Your task to perform on an android device: Go to Yahoo.com Image 0: 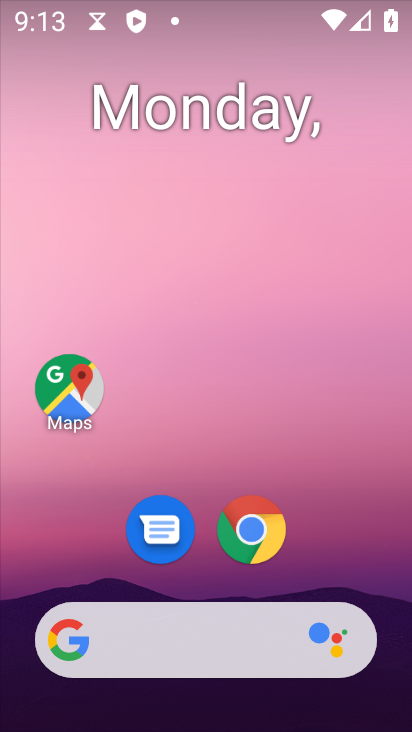
Step 0: drag from (281, 613) to (281, 24)
Your task to perform on an android device: Go to Yahoo.com Image 1: 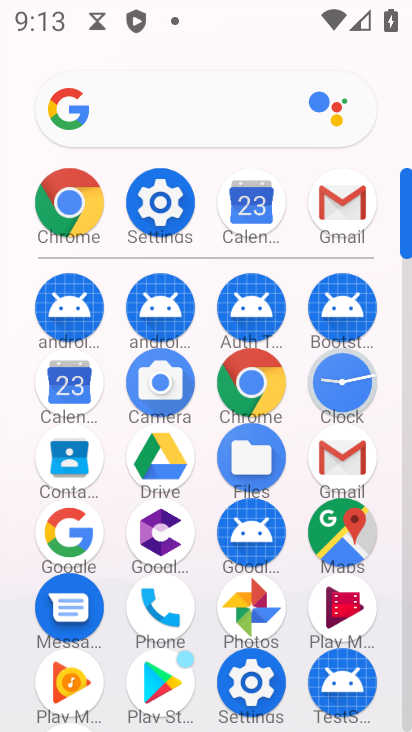
Step 1: click (72, 205)
Your task to perform on an android device: Go to Yahoo.com Image 2: 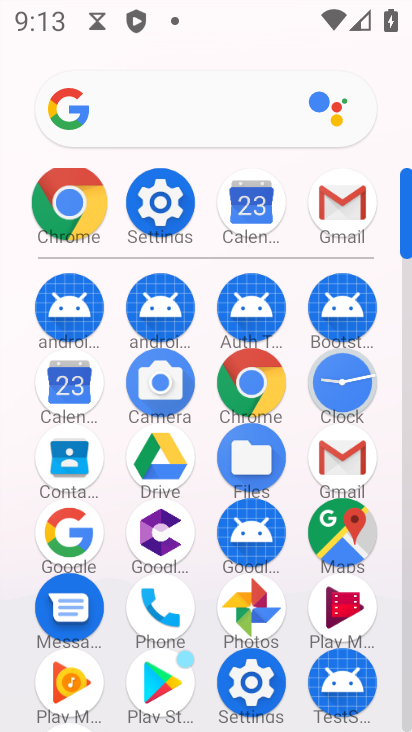
Step 2: click (82, 206)
Your task to perform on an android device: Go to Yahoo.com Image 3: 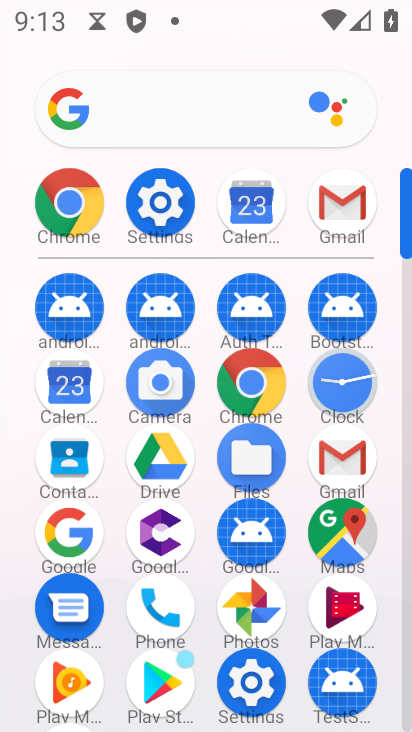
Step 3: click (68, 212)
Your task to perform on an android device: Go to Yahoo.com Image 4: 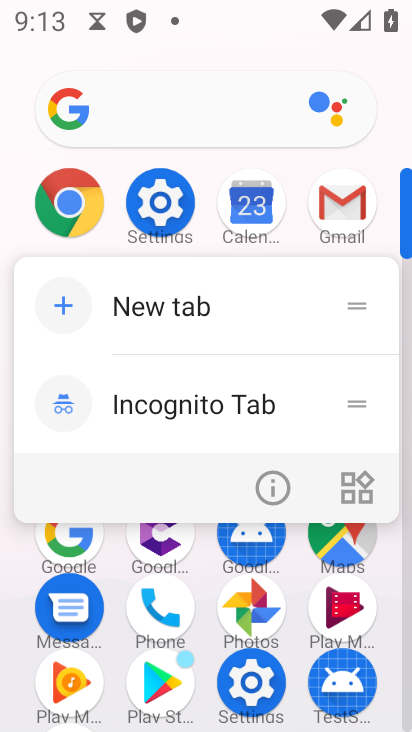
Step 4: click (130, 302)
Your task to perform on an android device: Go to Yahoo.com Image 5: 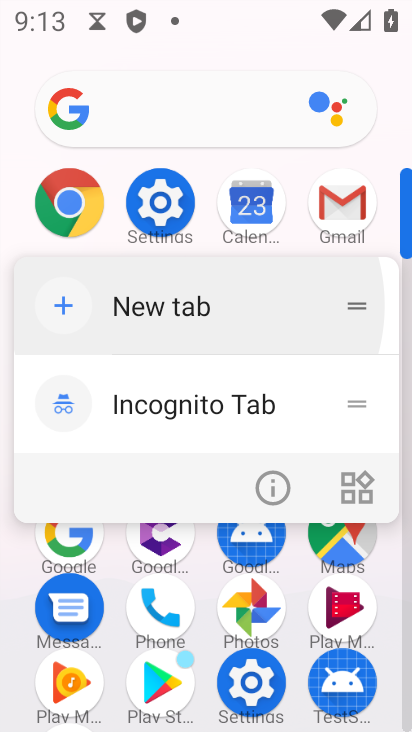
Step 5: click (131, 303)
Your task to perform on an android device: Go to Yahoo.com Image 6: 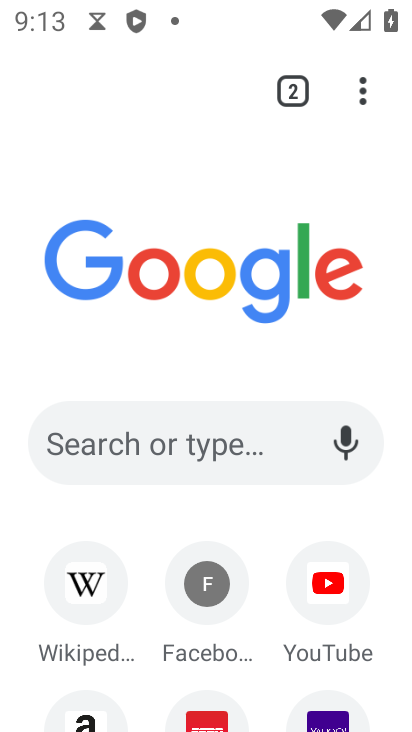
Step 6: drag from (267, 604) to (201, 138)
Your task to perform on an android device: Go to Yahoo.com Image 7: 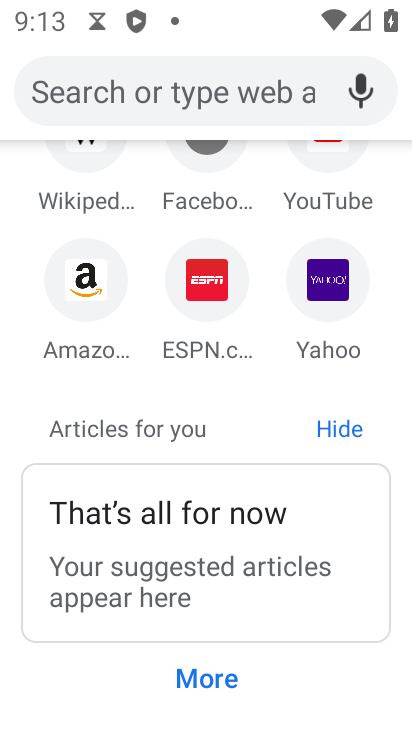
Step 7: drag from (300, 477) to (240, 82)
Your task to perform on an android device: Go to Yahoo.com Image 8: 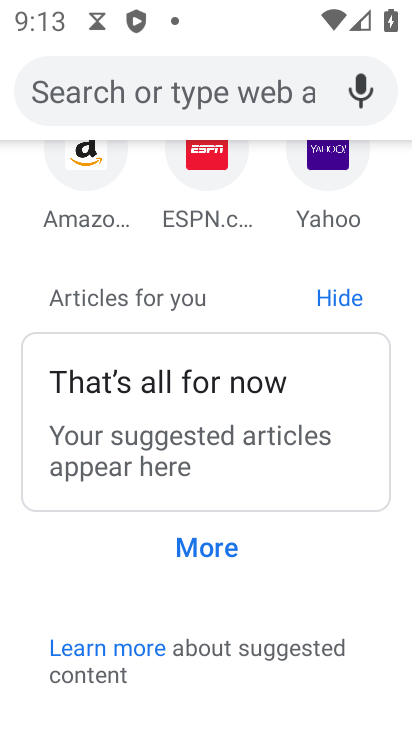
Step 8: click (331, 149)
Your task to perform on an android device: Go to Yahoo.com Image 9: 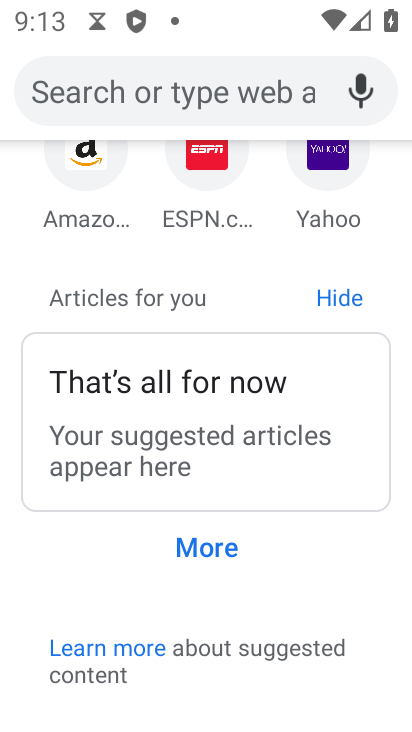
Step 9: click (331, 149)
Your task to perform on an android device: Go to Yahoo.com Image 10: 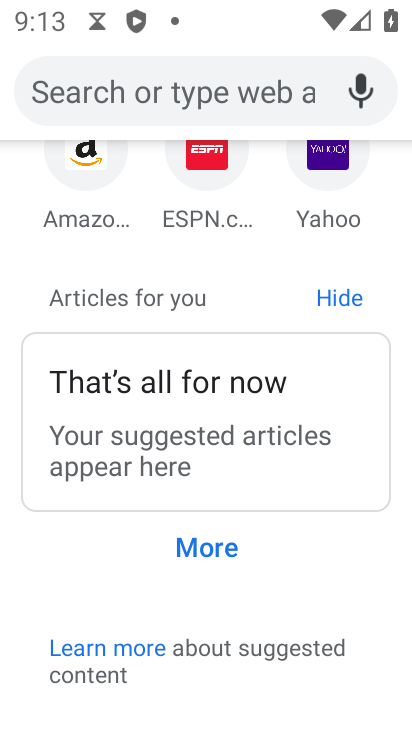
Step 10: click (336, 149)
Your task to perform on an android device: Go to Yahoo.com Image 11: 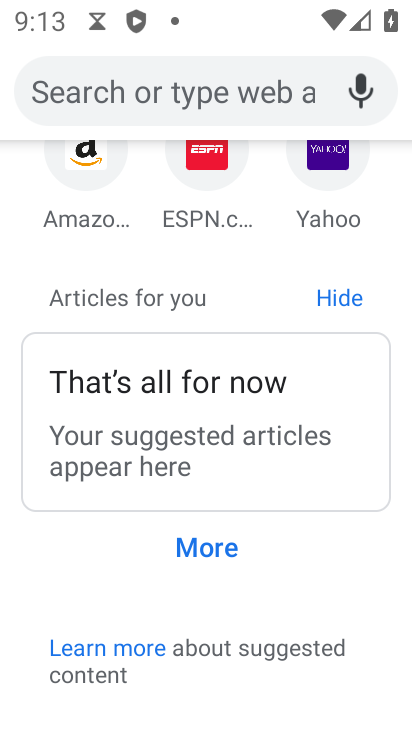
Step 11: click (336, 149)
Your task to perform on an android device: Go to Yahoo.com Image 12: 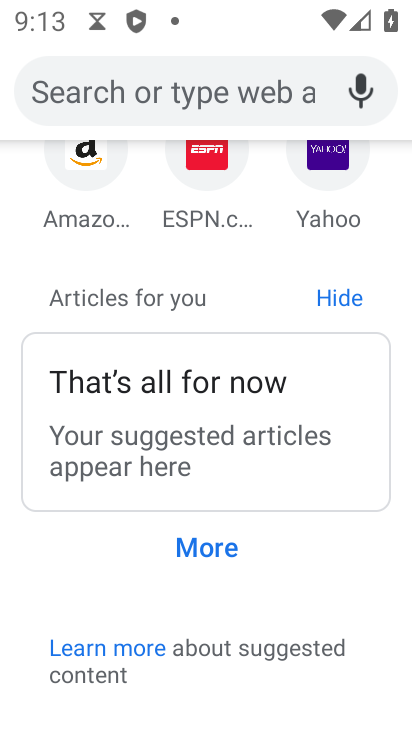
Step 12: click (338, 148)
Your task to perform on an android device: Go to Yahoo.com Image 13: 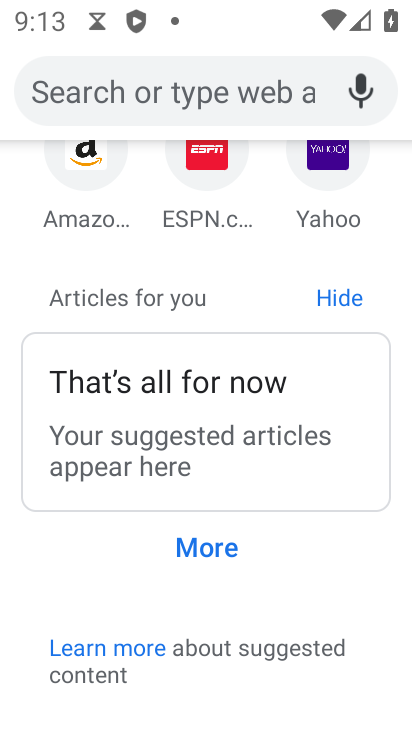
Step 13: click (338, 148)
Your task to perform on an android device: Go to Yahoo.com Image 14: 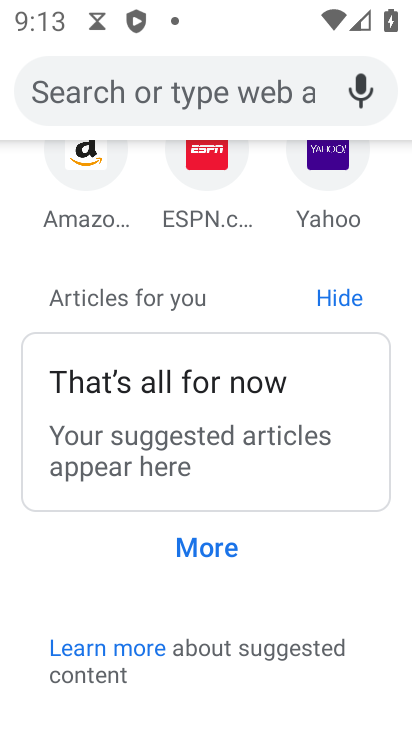
Step 14: click (338, 148)
Your task to perform on an android device: Go to Yahoo.com Image 15: 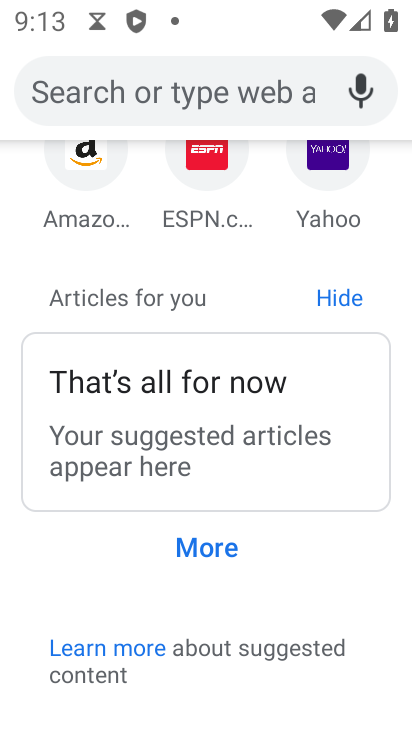
Step 15: click (338, 148)
Your task to perform on an android device: Go to Yahoo.com Image 16: 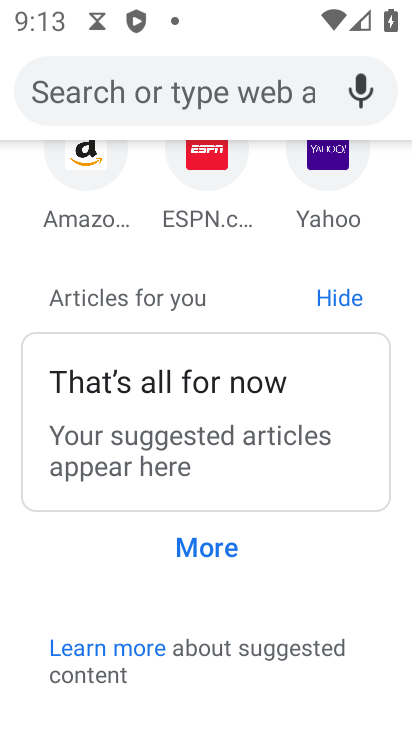
Step 16: click (338, 148)
Your task to perform on an android device: Go to Yahoo.com Image 17: 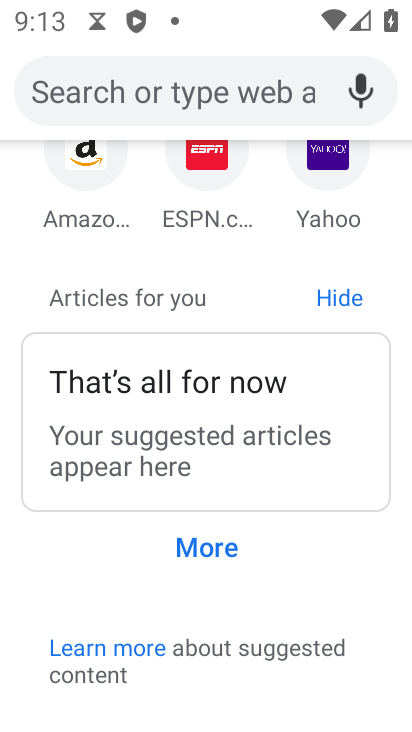
Step 17: click (338, 149)
Your task to perform on an android device: Go to Yahoo.com Image 18: 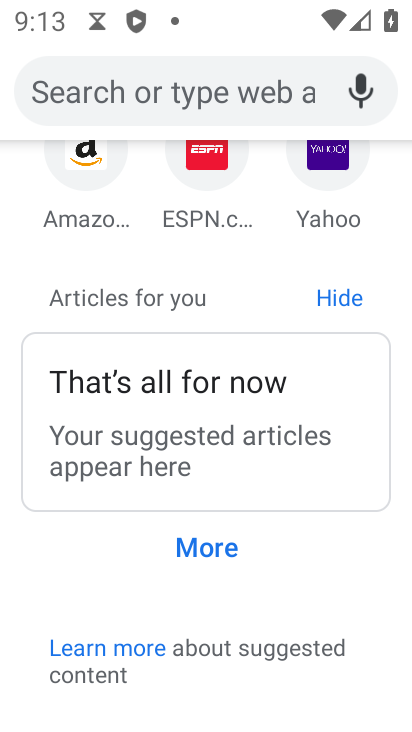
Step 18: click (338, 157)
Your task to perform on an android device: Go to Yahoo.com Image 19: 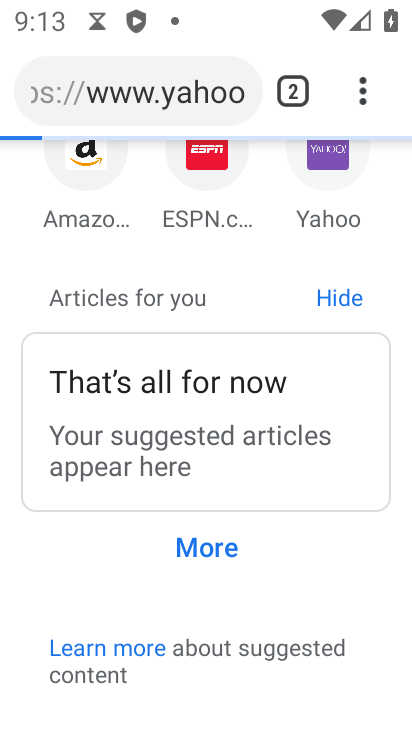
Step 19: task complete